Your task to perform on an android device: Open location settings Image 0: 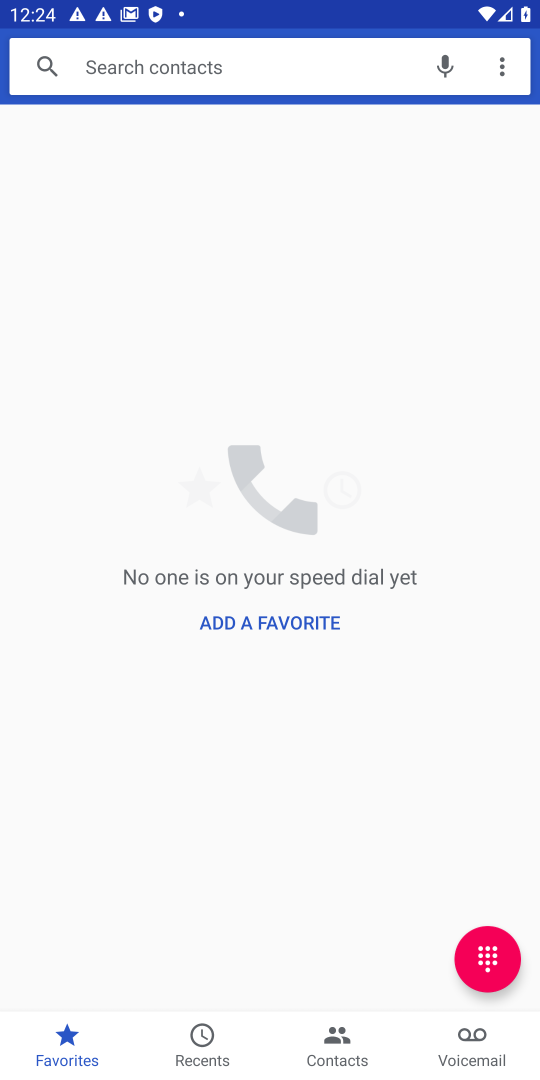
Step 0: press home button
Your task to perform on an android device: Open location settings Image 1: 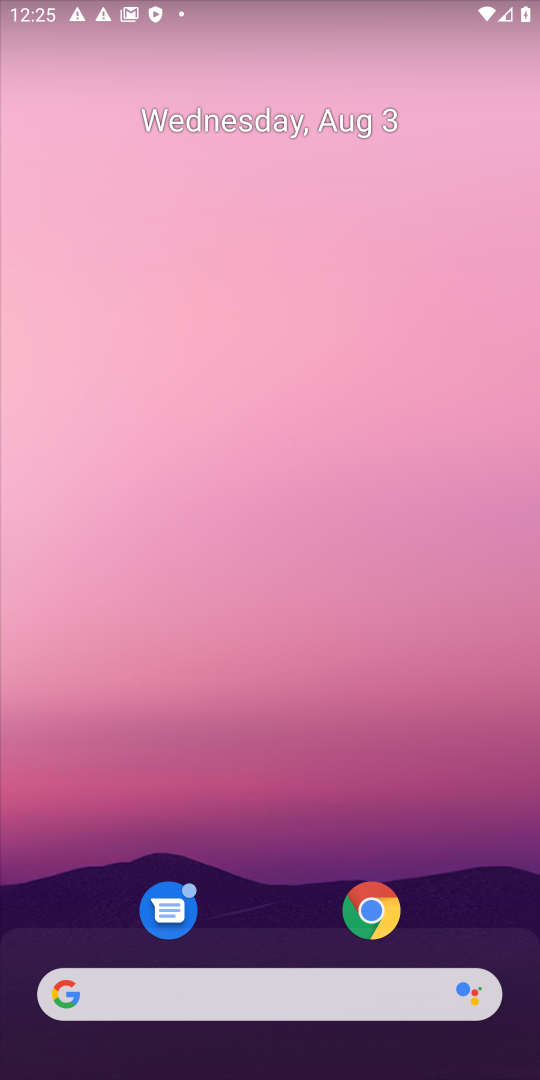
Step 1: drag from (235, 1013) to (347, 1)
Your task to perform on an android device: Open location settings Image 2: 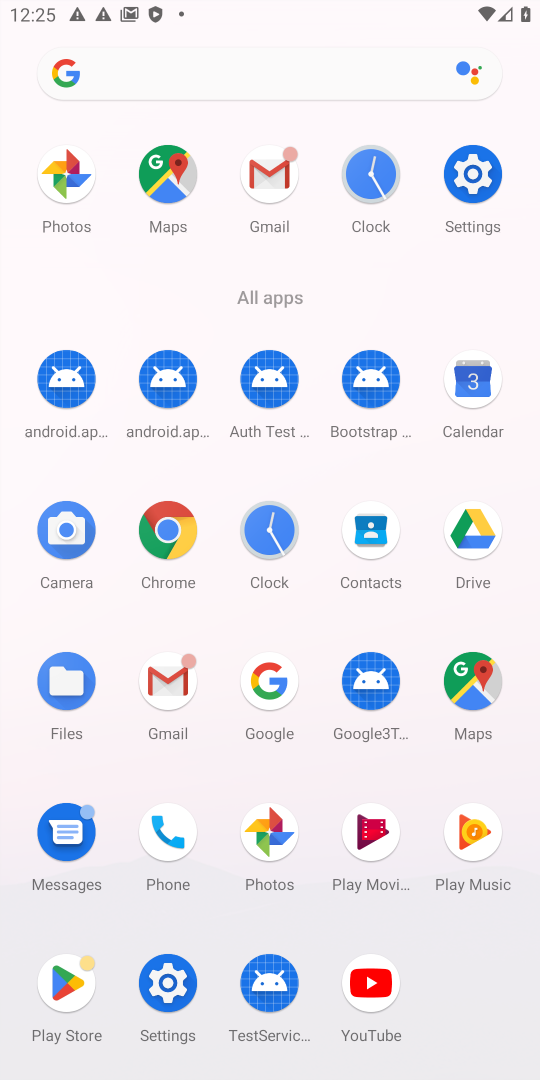
Step 2: click (478, 172)
Your task to perform on an android device: Open location settings Image 3: 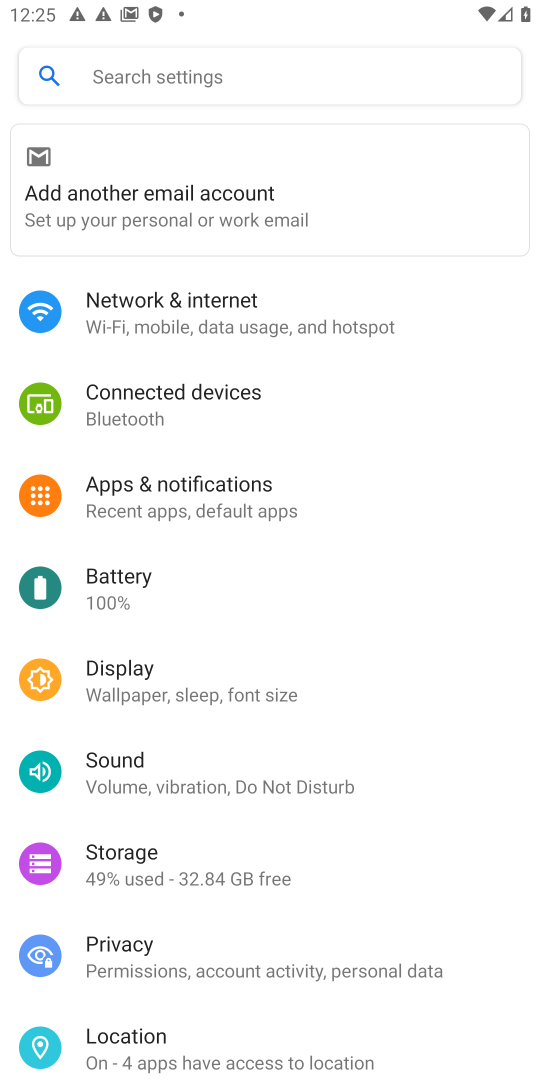
Step 3: click (187, 1036)
Your task to perform on an android device: Open location settings Image 4: 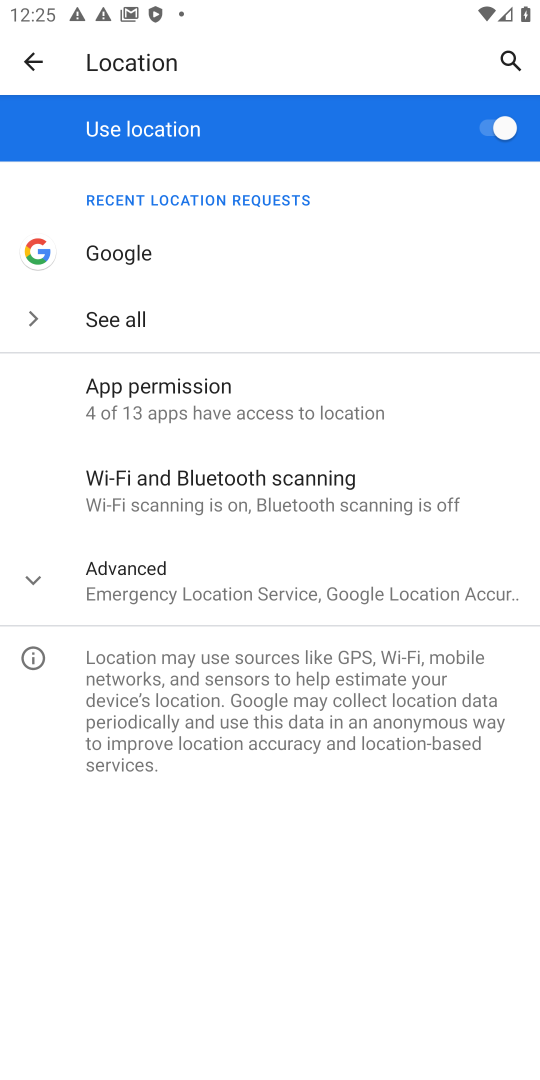
Step 4: task complete